Your task to perform on an android device: toggle improve location accuracy Image 0: 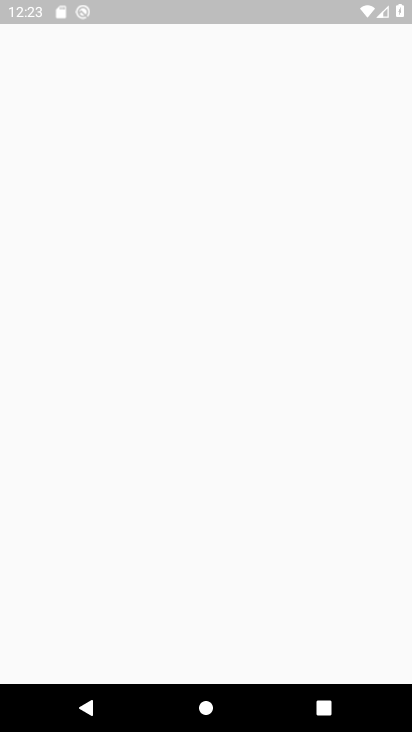
Step 0: press home button
Your task to perform on an android device: toggle improve location accuracy Image 1: 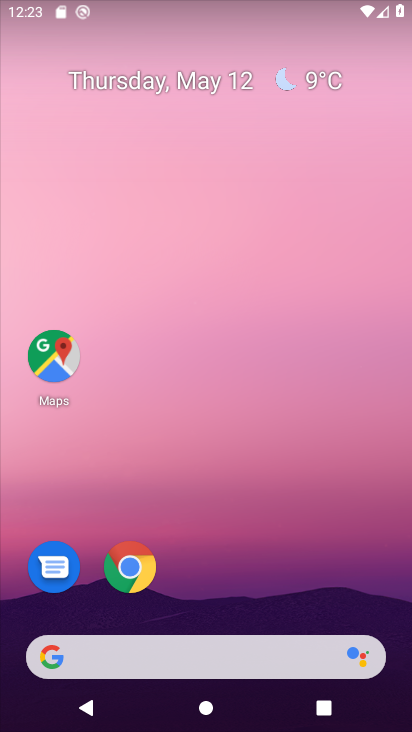
Step 1: drag from (183, 633) to (345, 67)
Your task to perform on an android device: toggle improve location accuracy Image 2: 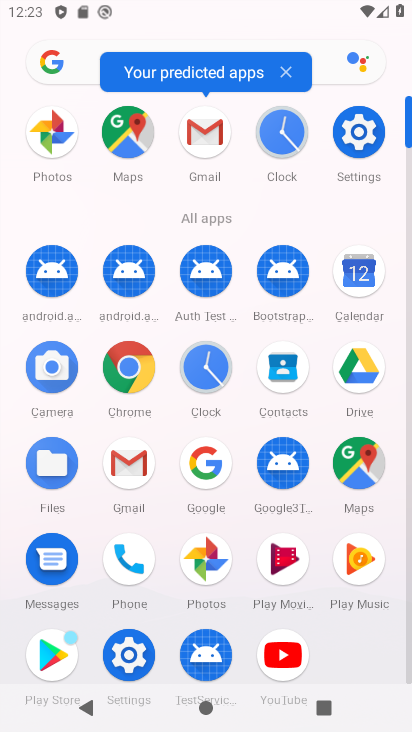
Step 2: click (133, 663)
Your task to perform on an android device: toggle improve location accuracy Image 3: 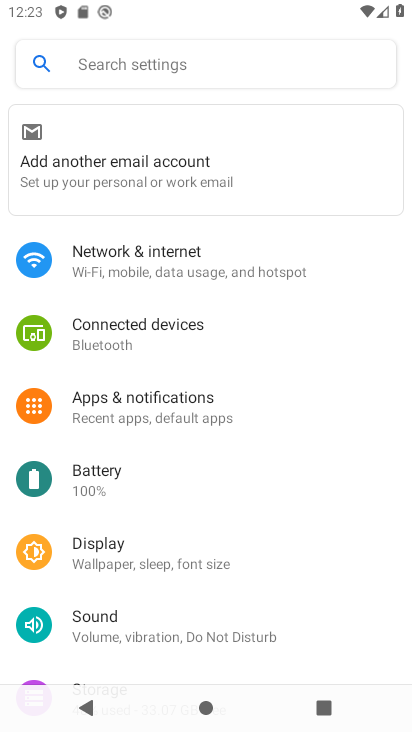
Step 3: drag from (199, 609) to (300, 267)
Your task to perform on an android device: toggle improve location accuracy Image 4: 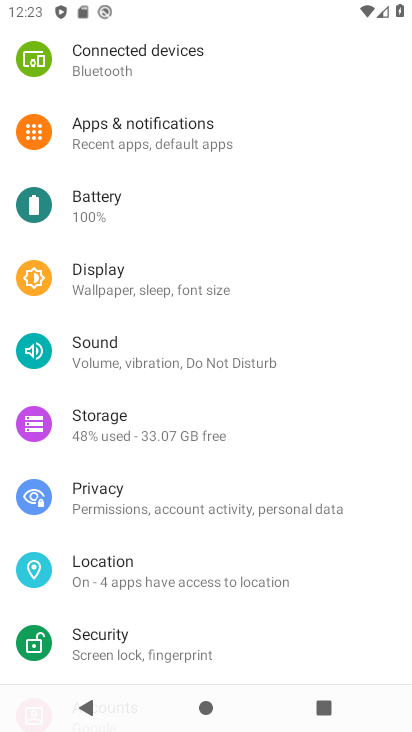
Step 4: click (150, 578)
Your task to perform on an android device: toggle improve location accuracy Image 5: 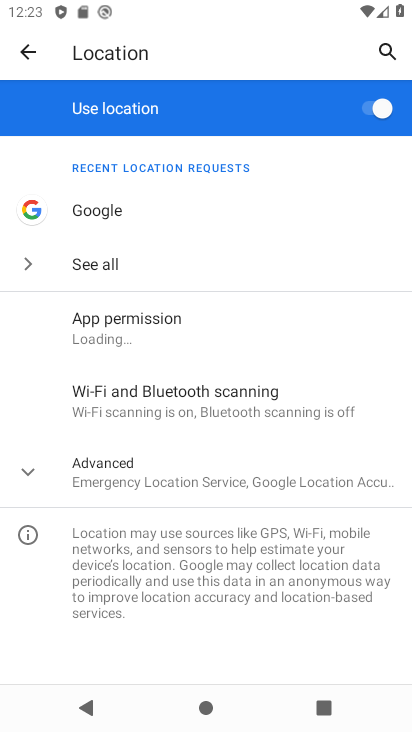
Step 5: click (169, 472)
Your task to perform on an android device: toggle improve location accuracy Image 6: 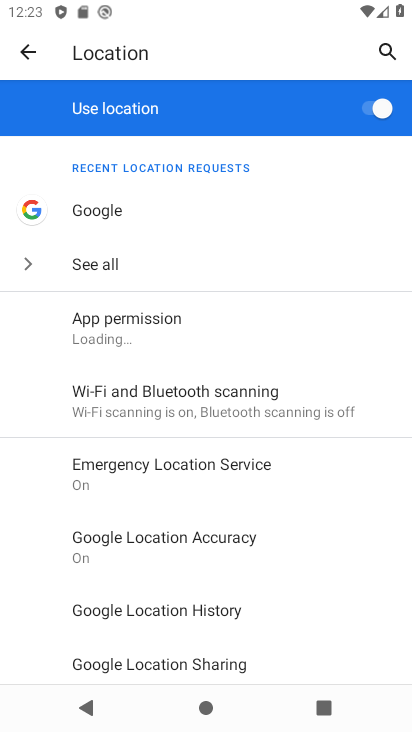
Step 6: drag from (195, 624) to (231, 509)
Your task to perform on an android device: toggle improve location accuracy Image 7: 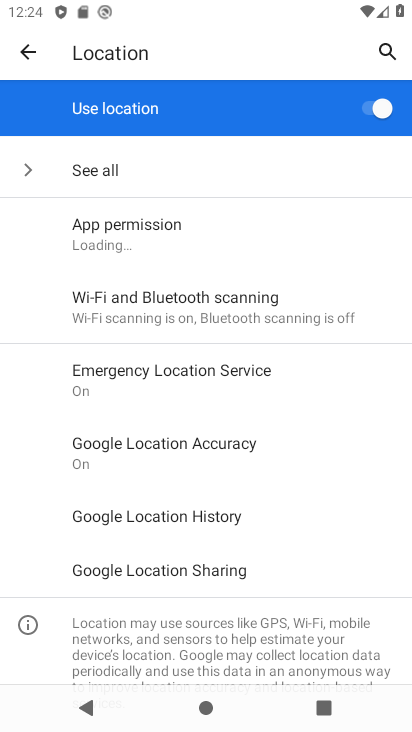
Step 7: click (218, 449)
Your task to perform on an android device: toggle improve location accuracy Image 8: 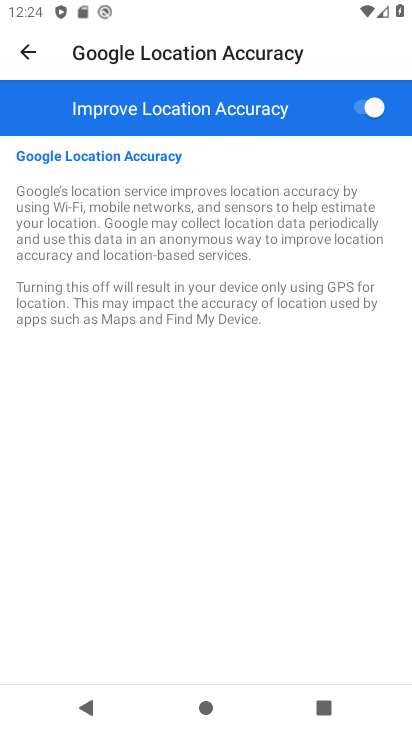
Step 8: click (361, 110)
Your task to perform on an android device: toggle improve location accuracy Image 9: 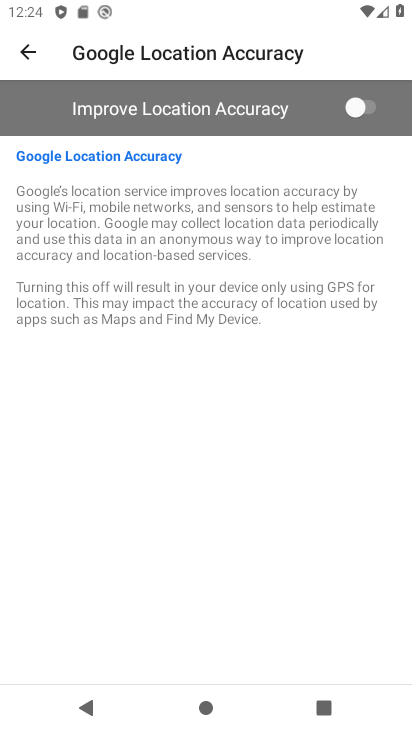
Step 9: task complete